Your task to perform on an android device: set the timer Image 0: 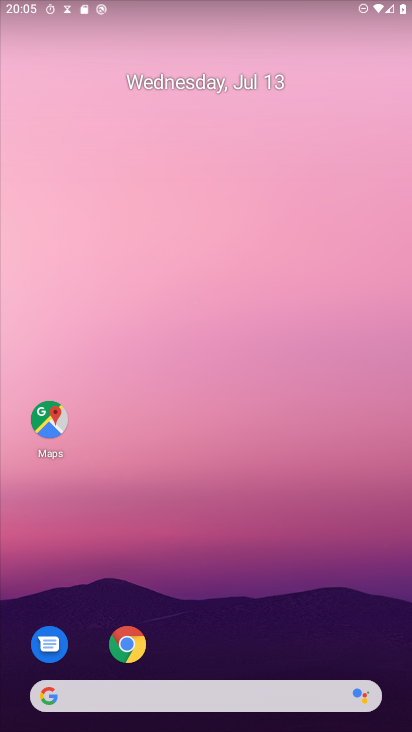
Step 0: drag from (309, 597) to (333, 12)
Your task to perform on an android device: set the timer Image 1: 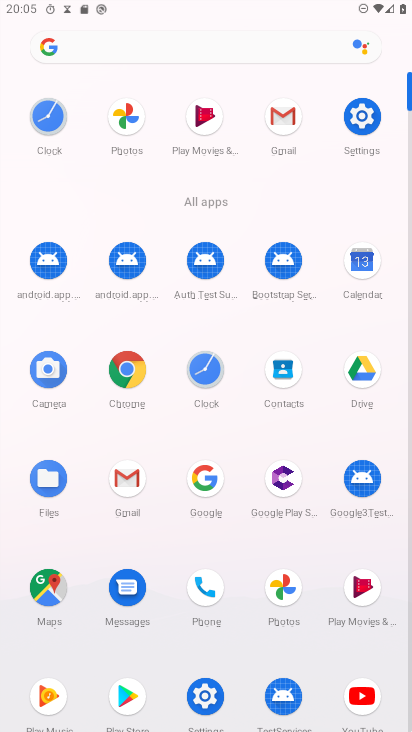
Step 1: click (210, 375)
Your task to perform on an android device: set the timer Image 2: 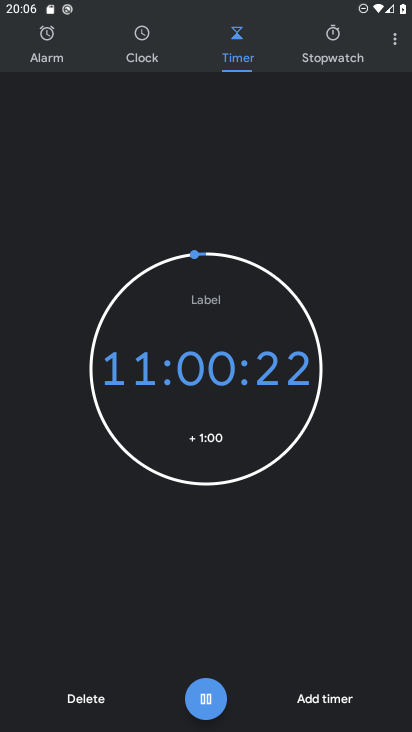
Step 2: task complete